Your task to perform on an android device: Open the calendar app, open the side menu, and click the "Day" option Image 0: 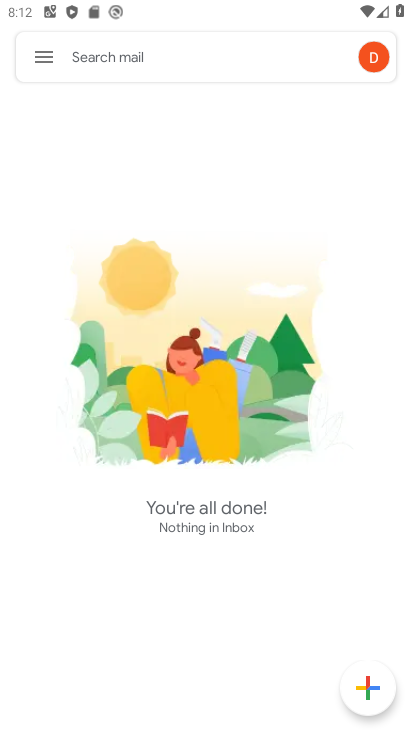
Step 0: press home button
Your task to perform on an android device: Open the calendar app, open the side menu, and click the "Day" option Image 1: 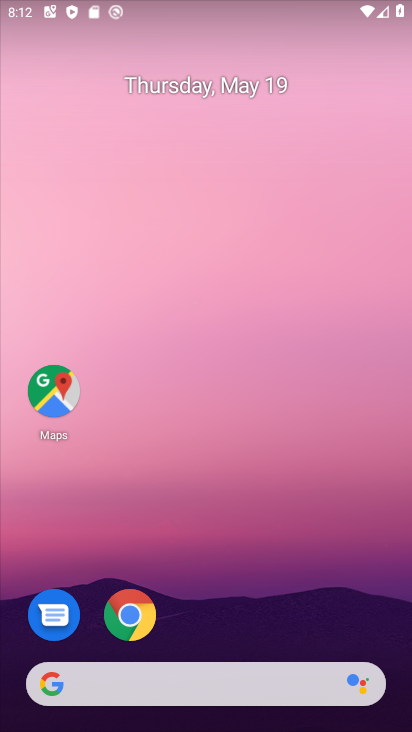
Step 1: drag from (248, 585) to (256, 205)
Your task to perform on an android device: Open the calendar app, open the side menu, and click the "Day" option Image 2: 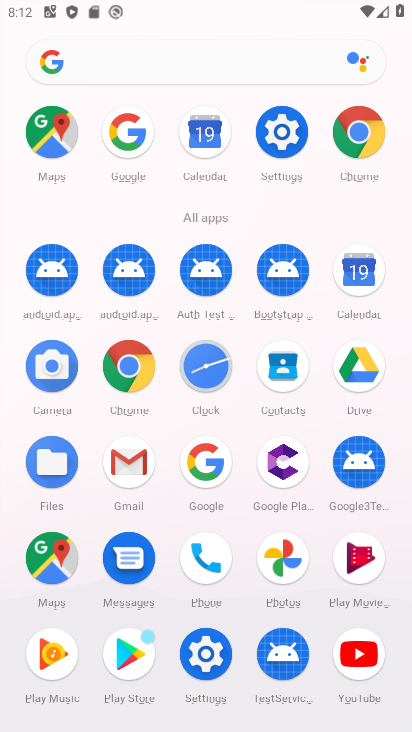
Step 2: click (368, 274)
Your task to perform on an android device: Open the calendar app, open the side menu, and click the "Day" option Image 3: 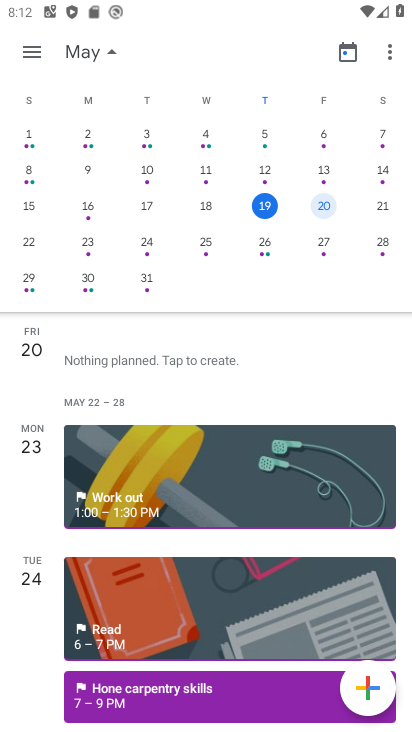
Step 3: click (266, 207)
Your task to perform on an android device: Open the calendar app, open the side menu, and click the "Day" option Image 4: 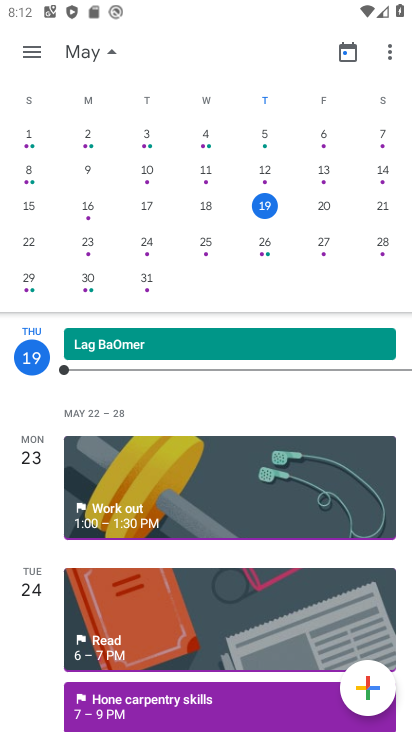
Step 4: click (28, 50)
Your task to perform on an android device: Open the calendar app, open the side menu, and click the "Day" option Image 5: 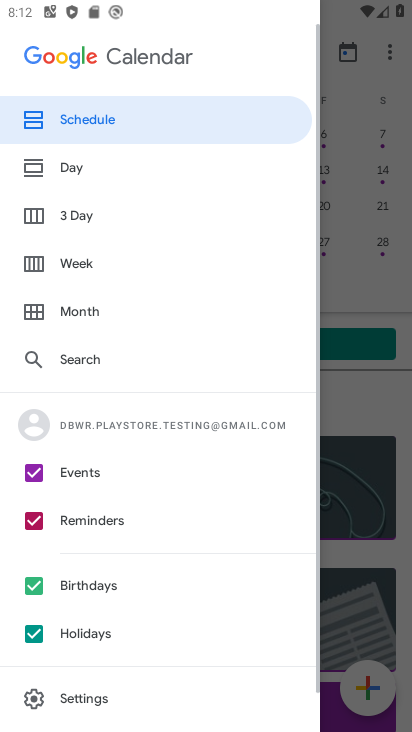
Step 5: click (102, 170)
Your task to perform on an android device: Open the calendar app, open the side menu, and click the "Day" option Image 6: 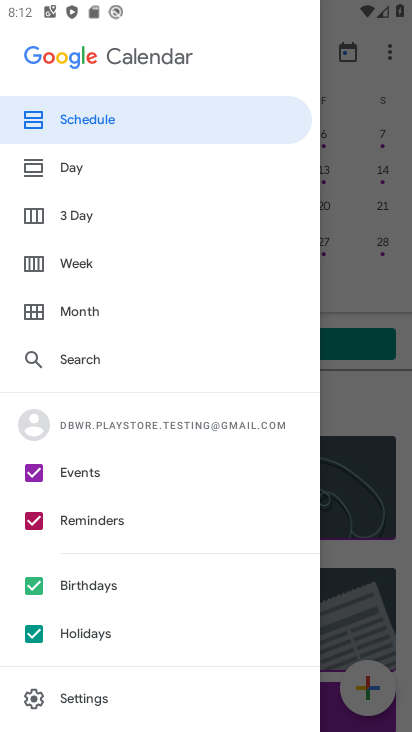
Step 6: click (90, 173)
Your task to perform on an android device: Open the calendar app, open the side menu, and click the "Day" option Image 7: 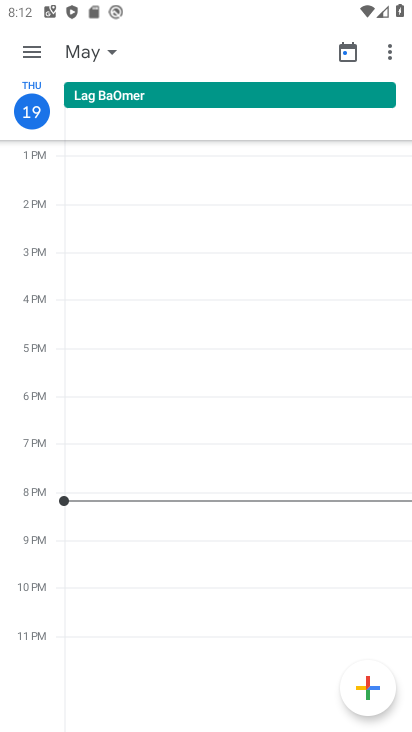
Step 7: task complete